Your task to perform on an android device: turn off javascript in the chrome app Image 0: 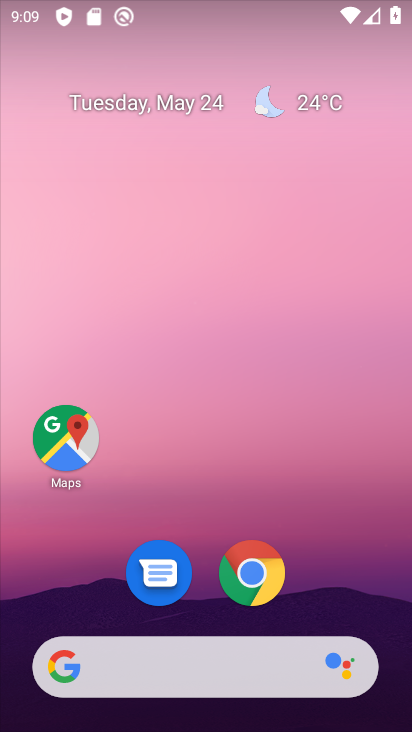
Step 0: click (254, 568)
Your task to perform on an android device: turn off javascript in the chrome app Image 1: 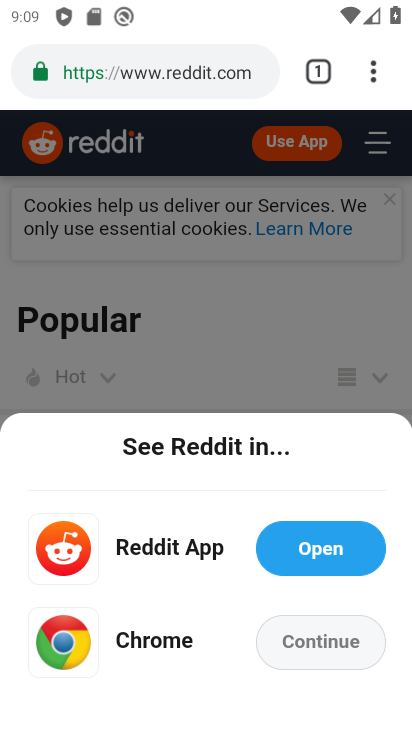
Step 1: click (372, 79)
Your task to perform on an android device: turn off javascript in the chrome app Image 2: 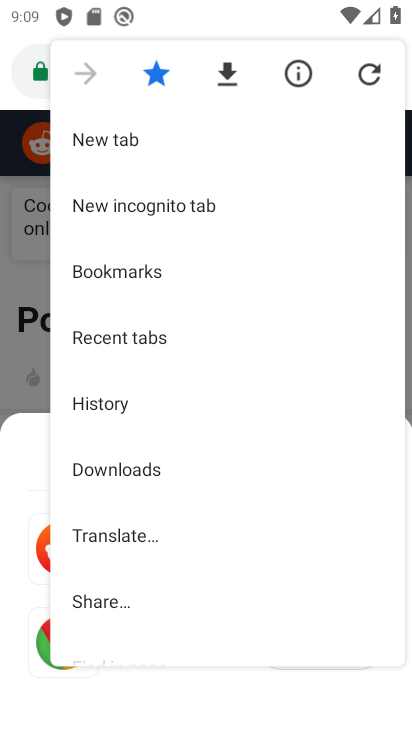
Step 2: drag from (163, 578) to (197, 240)
Your task to perform on an android device: turn off javascript in the chrome app Image 3: 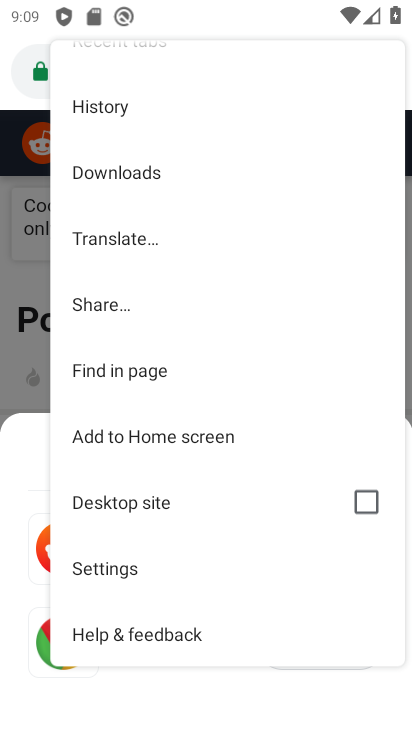
Step 3: click (98, 564)
Your task to perform on an android device: turn off javascript in the chrome app Image 4: 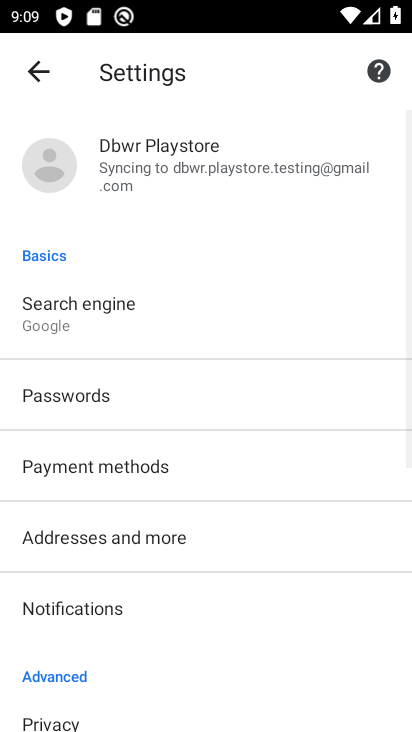
Step 4: drag from (188, 630) to (230, 213)
Your task to perform on an android device: turn off javascript in the chrome app Image 5: 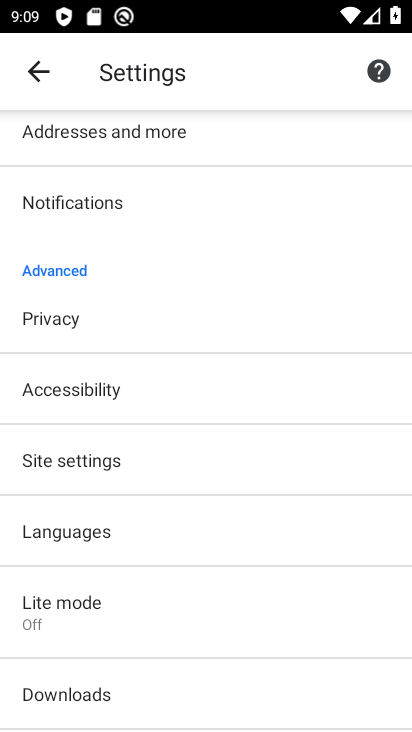
Step 5: click (87, 466)
Your task to perform on an android device: turn off javascript in the chrome app Image 6: 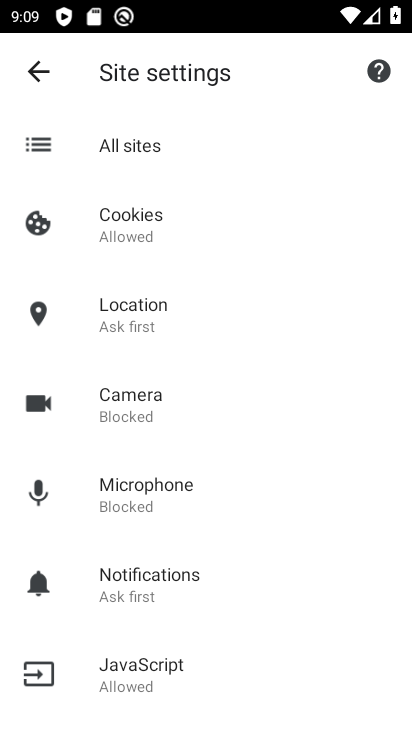
Step 6: click (114, 684)
Your task to perform on an android device: turn off javascript in the chrome app Image 7: 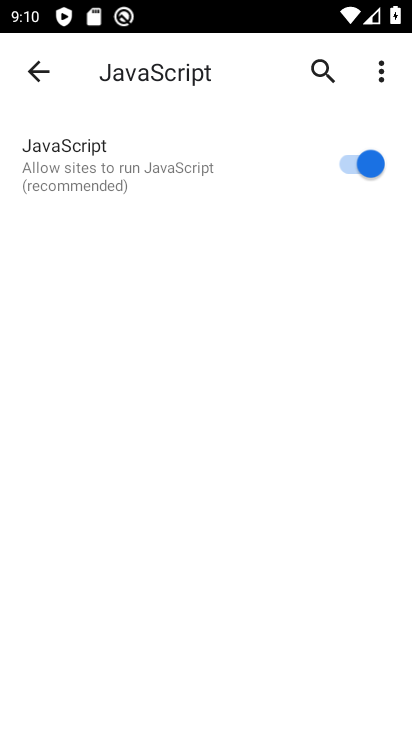
Step 7: click (337, 166)
Your task to perform on an android device: turn off javascript in the chrome app Image 8: 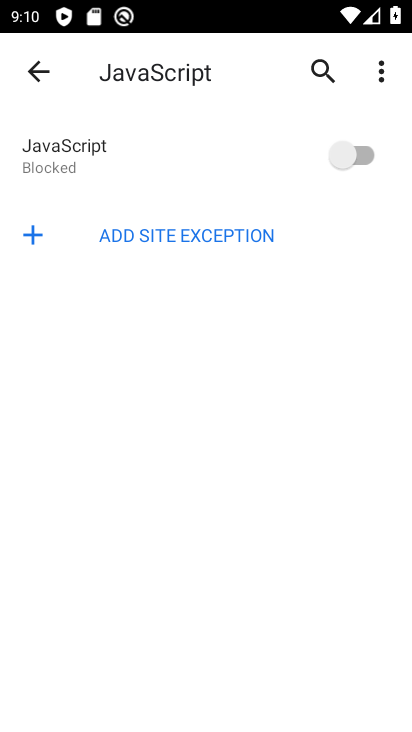
Step 8: task complete